Your task to perform on an android device: install app "AliExpress" Image 0: 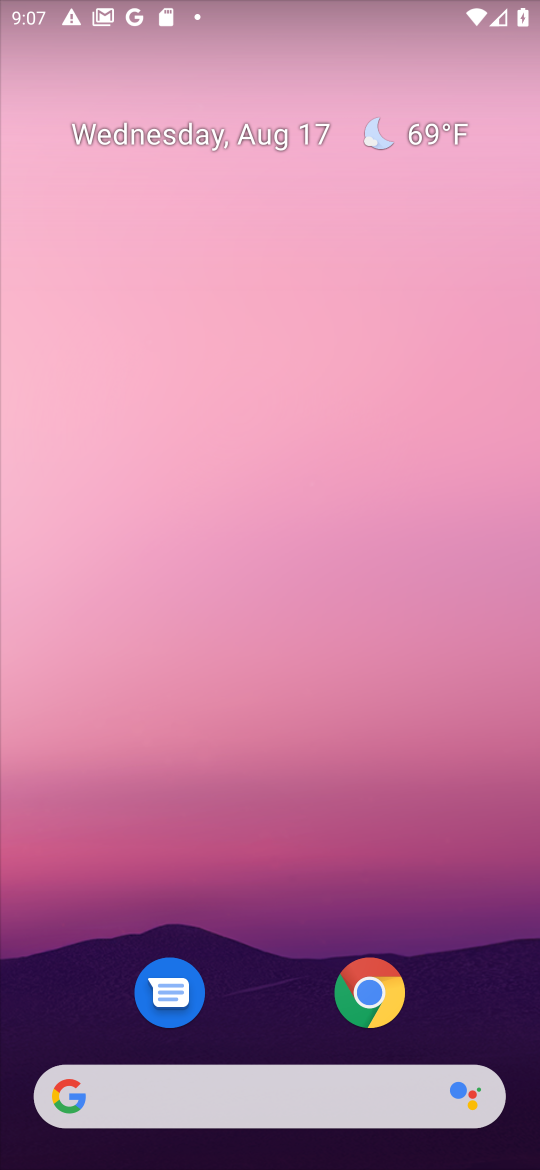
Step 0: drag from (466, 1020) to (263, 28)
Your task to perform on an android device: install app "AliExpress" Image 1: 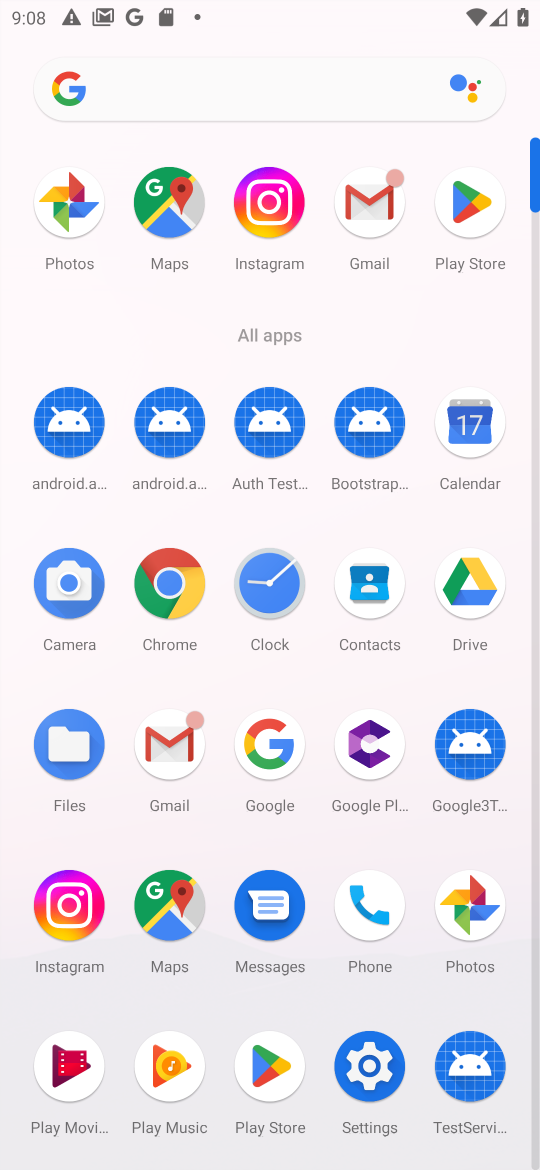
Step 1: click (271, 1086)
Your task to perform on an android device: install app "AliExpress" Image 2: 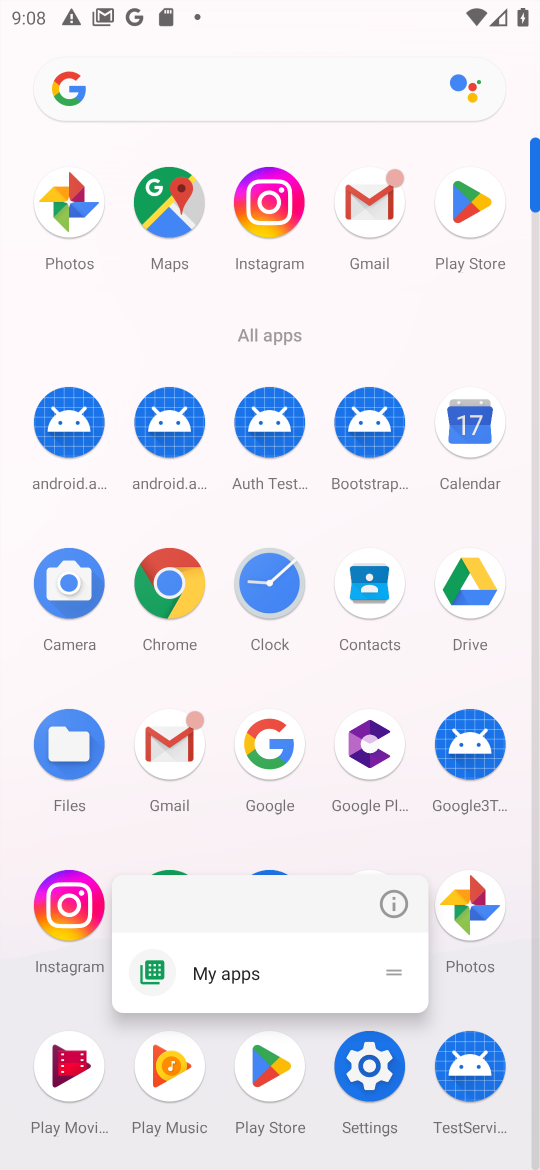
Step 2: click (271, 1086)
Your task to perform on an android device: install app "AliExpress" Image 3: 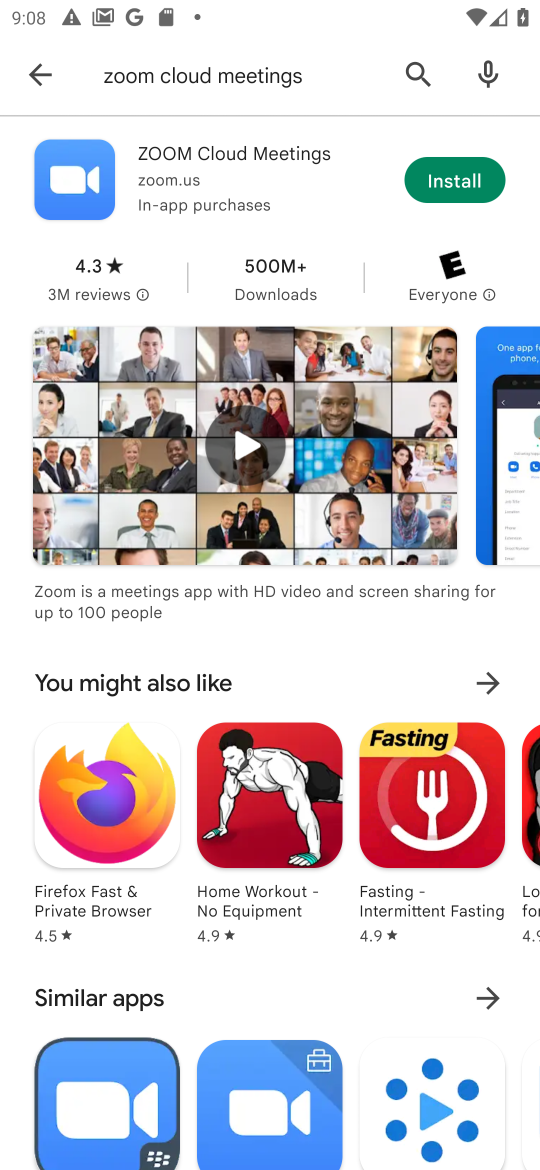
Step 3: press back button
Your task to perform on an android device: install app "AliExpress" Image 4: 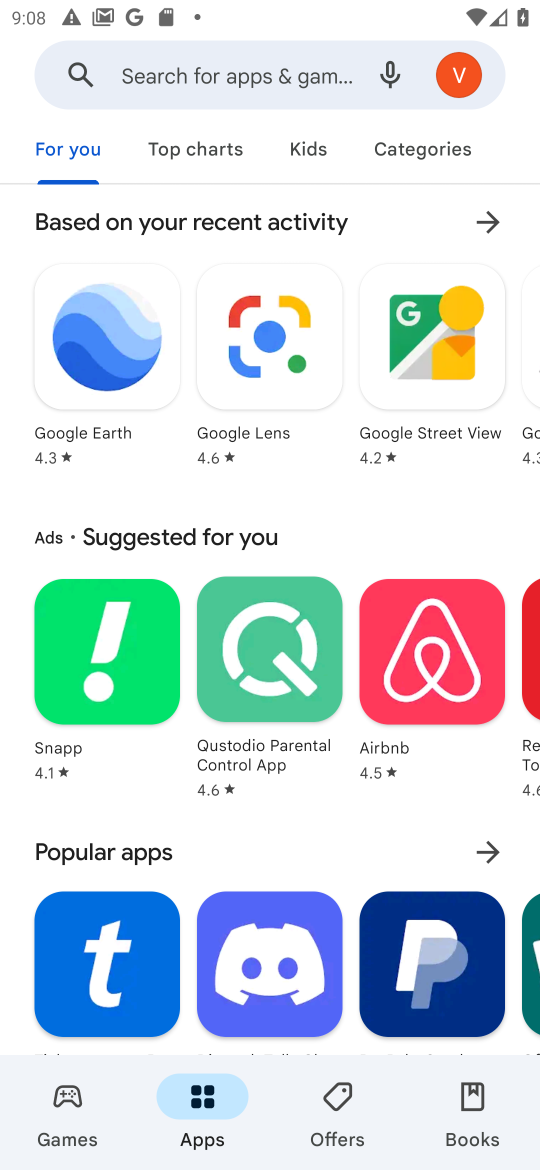
Step 4: click (170, 82)
Your task to perform on an android device: install app "AliExpress" Image 5: 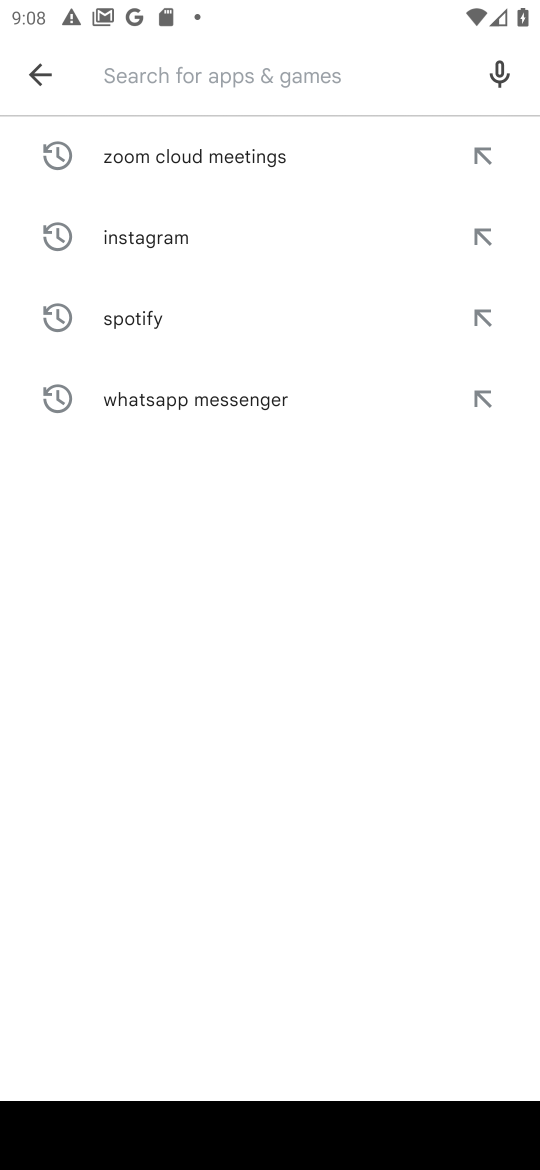
Step 5: type "AliExpress"
Your task to perform on an android device: install app "AliExpress" Image 6: 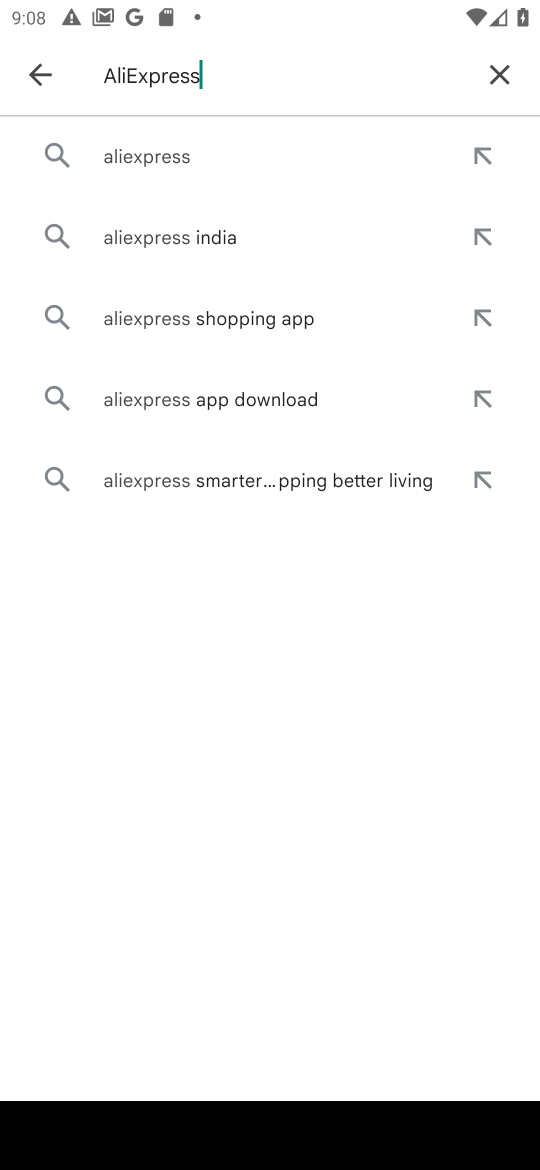
Step 6: click (180, 161)
Your task to perform on an android device: install app "AliExpress" Image 7: 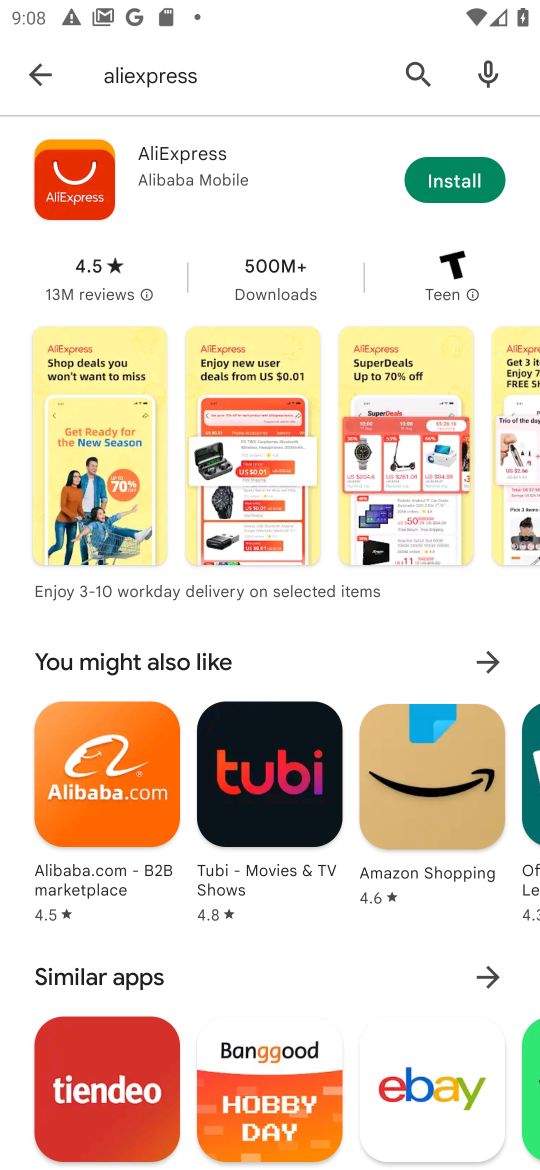
Step 7: click (454, 173)
Your task to perform on an android device: install app "AliExpress" Image 8: 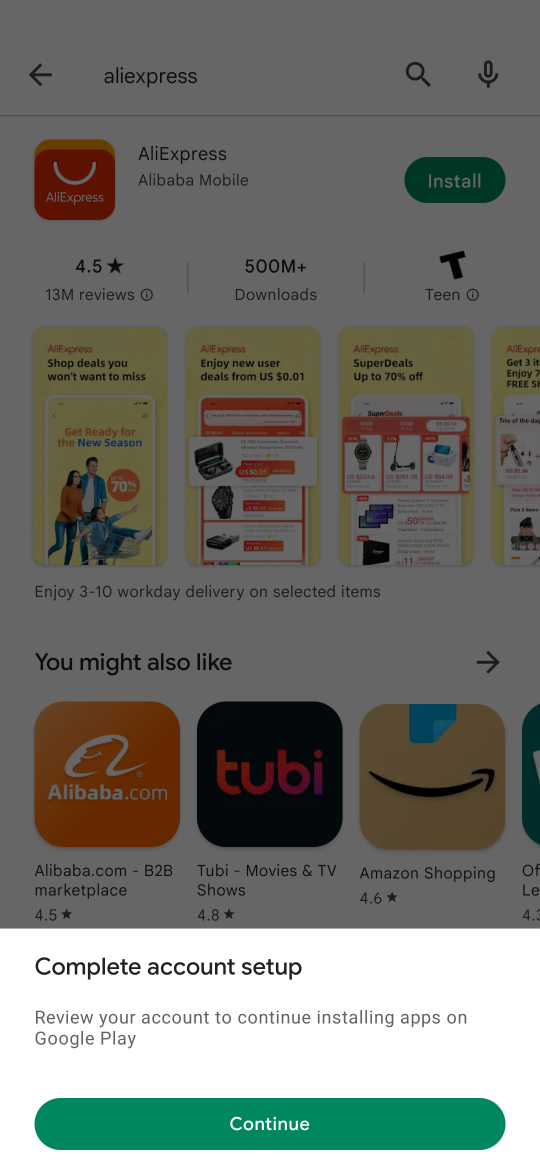
Step 8: click (282, 1133)
Your task to perform on an android device: install app "AliExpress" Image 9: 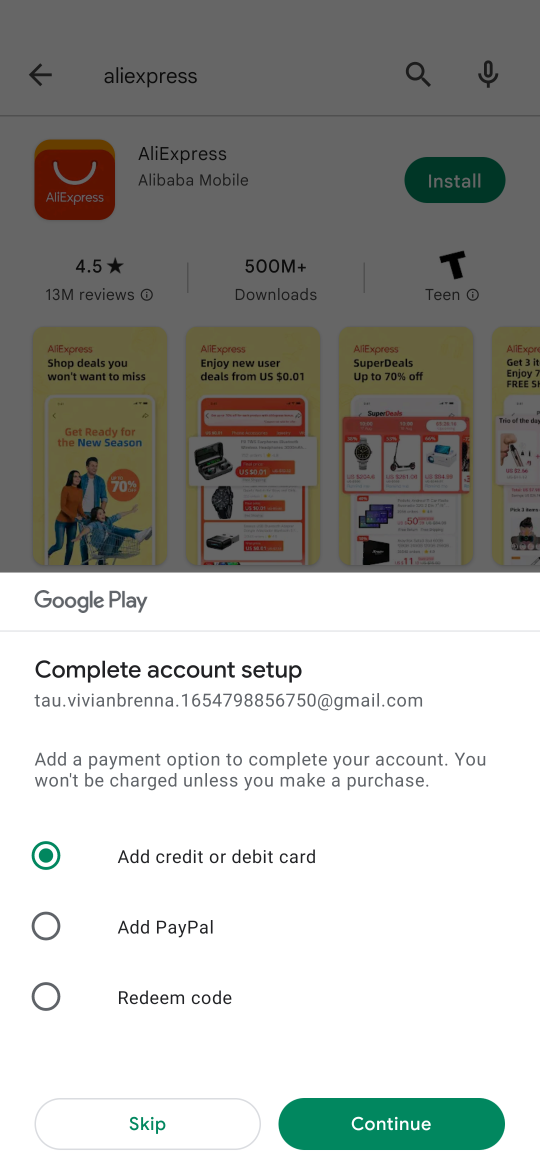
Step 9: click (142, 1119)
Your task to perform on an android device: install app "AliExpress" Image 10: 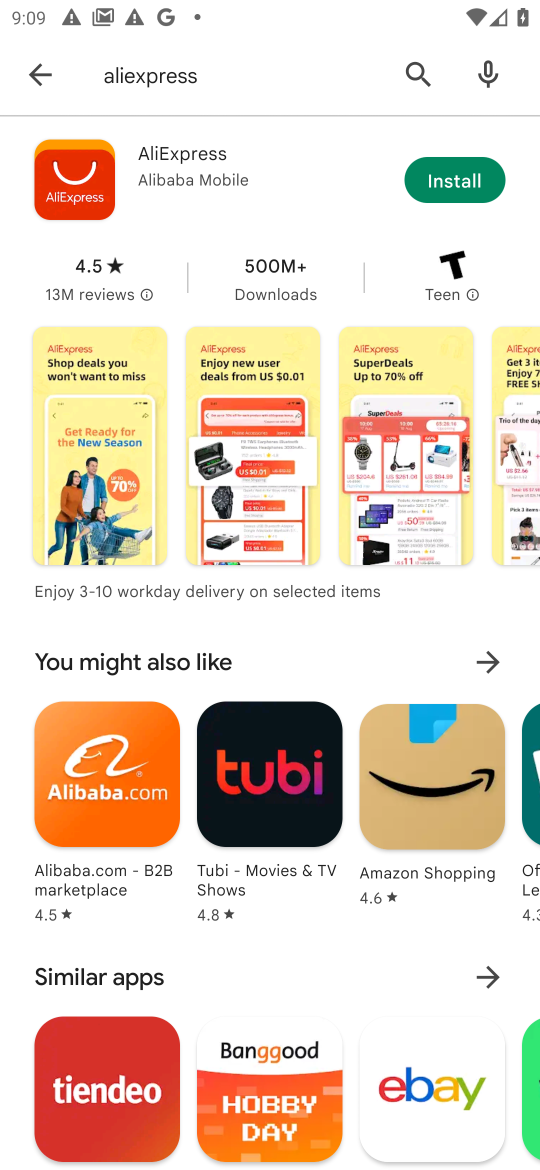
Step 10: task complete